Your task to perform on an android device: open wifi settings Image 0: 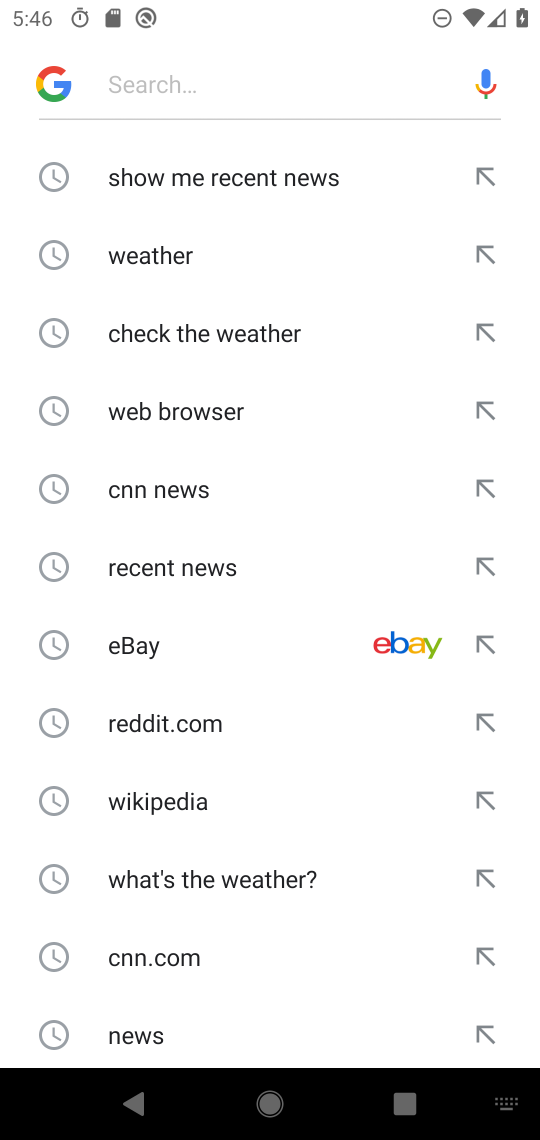
Step 0: press home button
Your task to perform on an android device: open wifi settings Image 1: 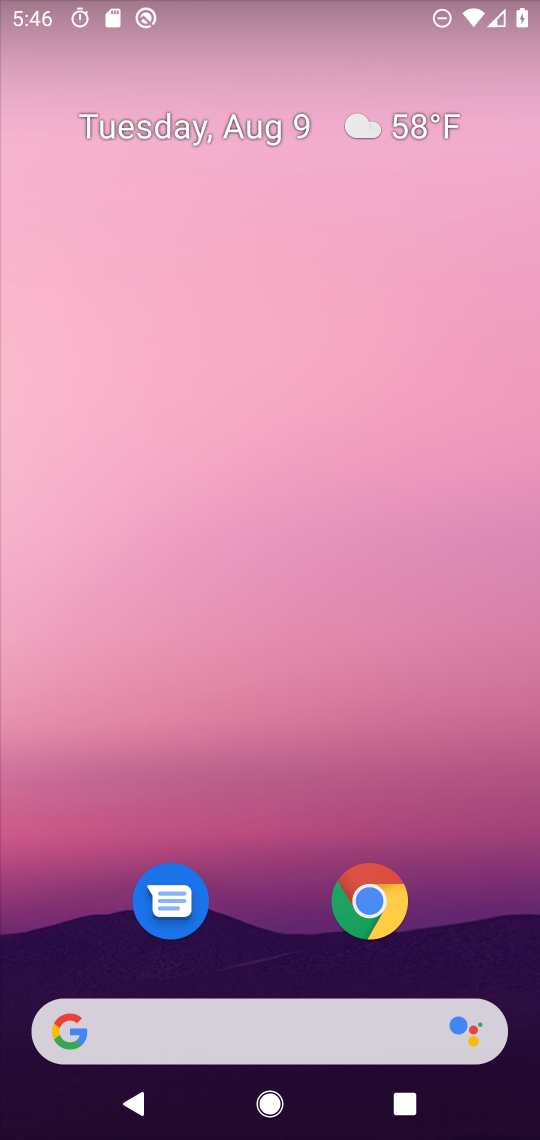
Step 1: drag from (213, 22) to (155, 662)
Your task to perform on an android device: open wifi settings Image 2: 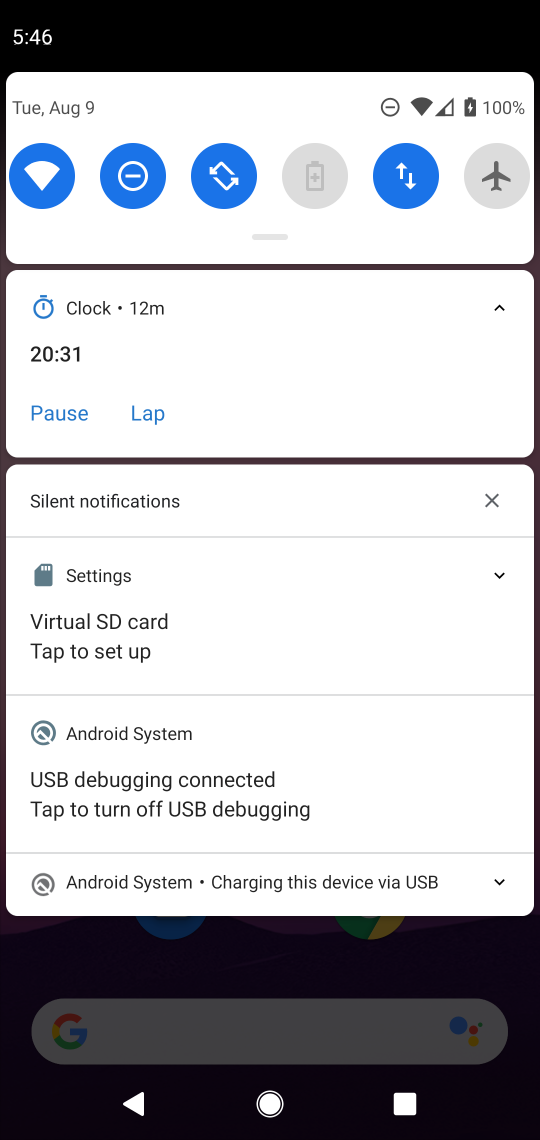
Step 2: click (51, 182)
Your task to perform on an android device: open wifi settings Image 3: 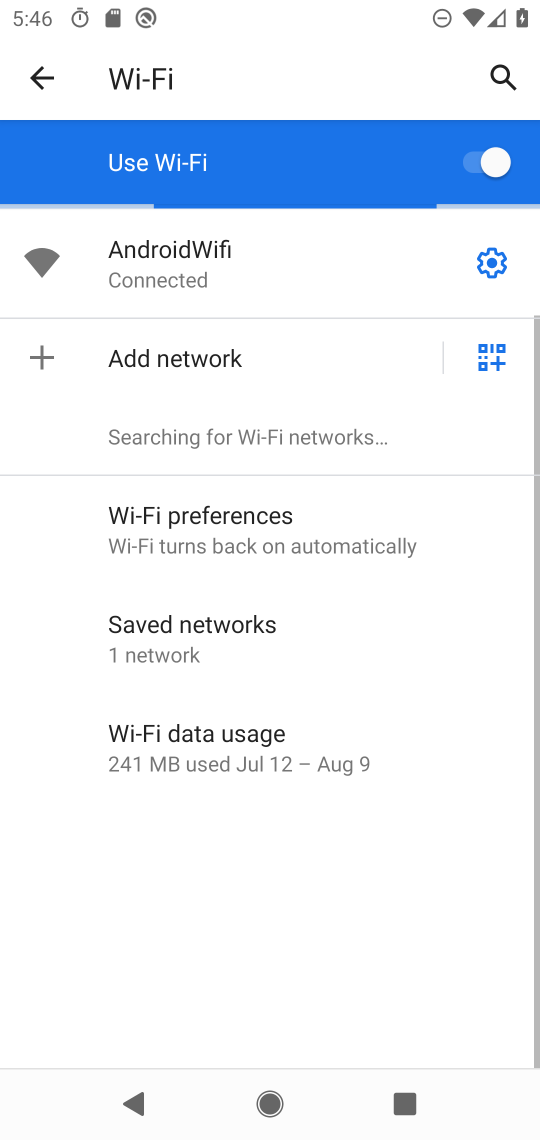
Step 3: task complete